Your task to perform on an android device: turn on wifi Image 0: 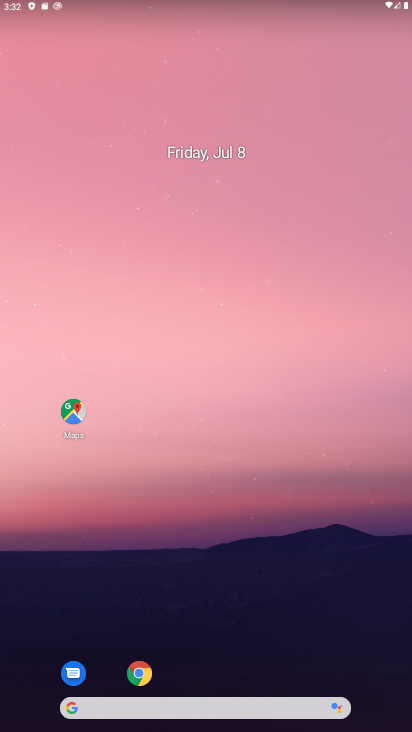
Step 0: drag from (219, 667) to (229, 61)
Your task to perform on an android device: turn on wifi Image 1: 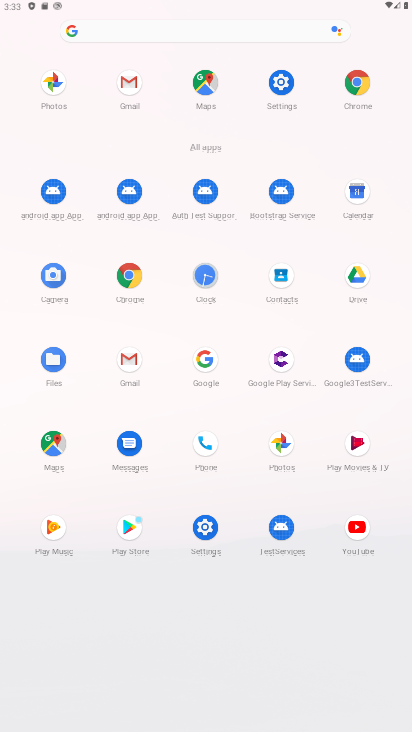
Step 1: click (276, 86)
Your task to perform on an android device: turn on wifi Image 2: 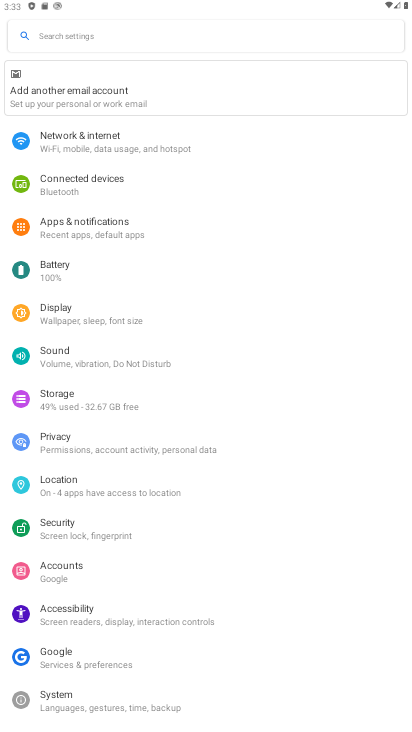
Step 2: click (105, 142)
Your task to perform on an android device: turn on wifi Image 3: 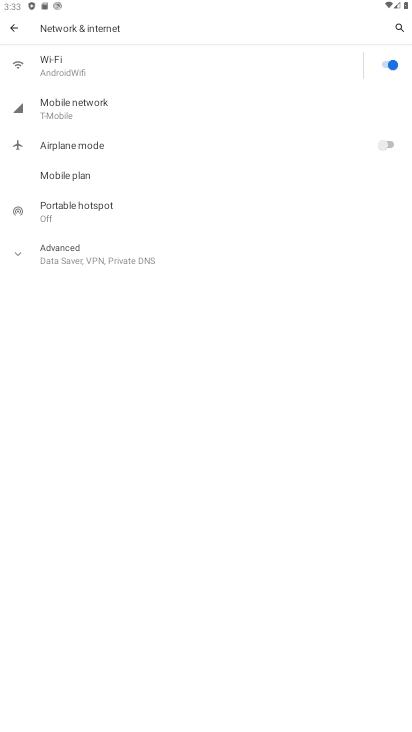
Step 3: task complete